Your task to perform on an android device: Add bose soundlink to the cart on target Image 0: 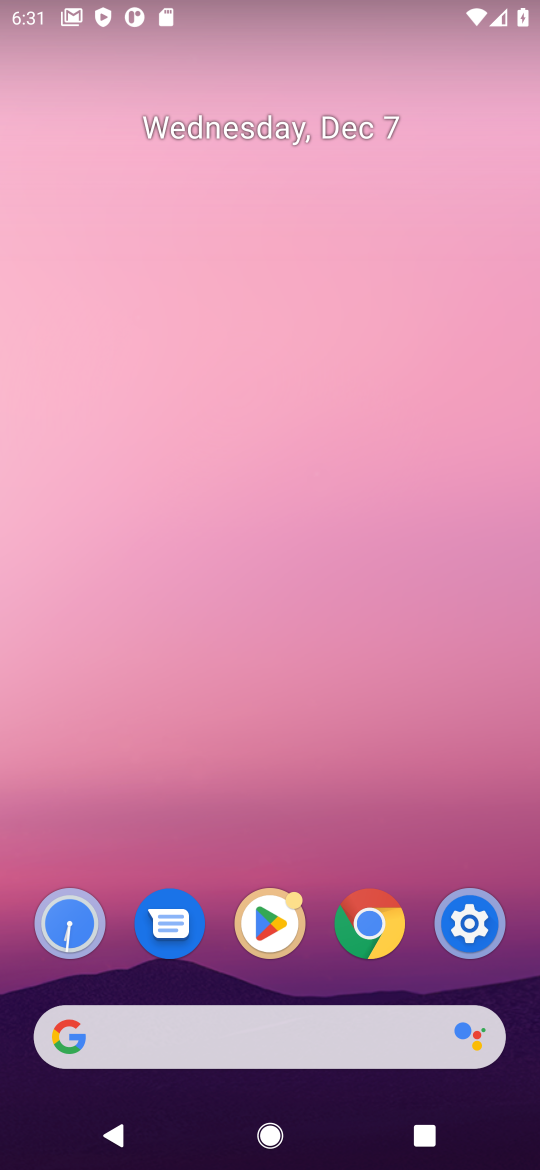
Step 0: drag from (206, 946) to (203, 273)
Your task to perform on an android device: Add bose soundlink to the cart on target Image 1: 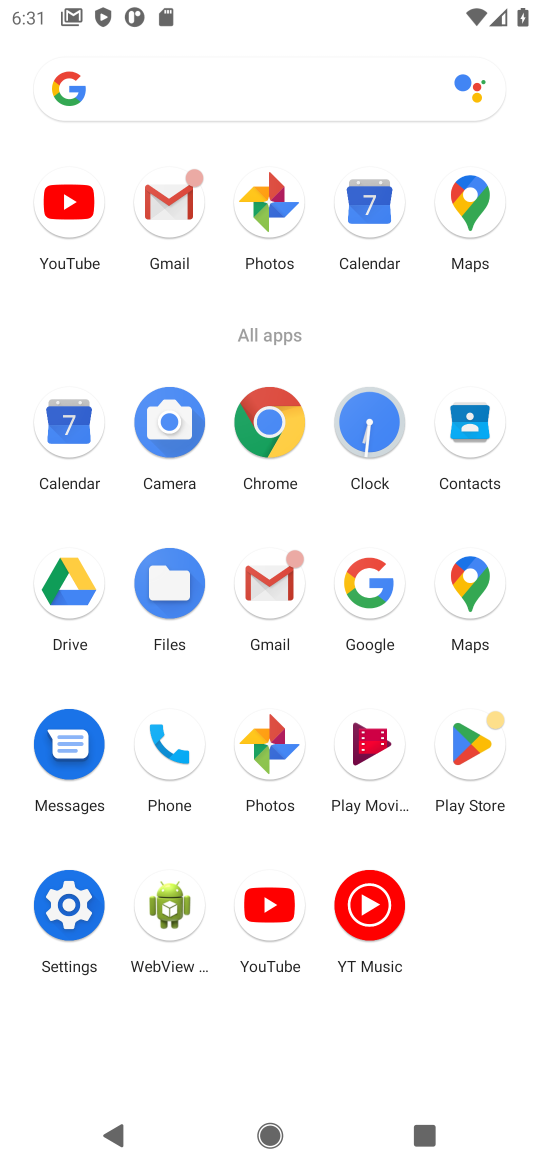
Step 1: click (362, 578)
Your task to perform on an android device: Add bose soundlink to the cart on target Image 2: 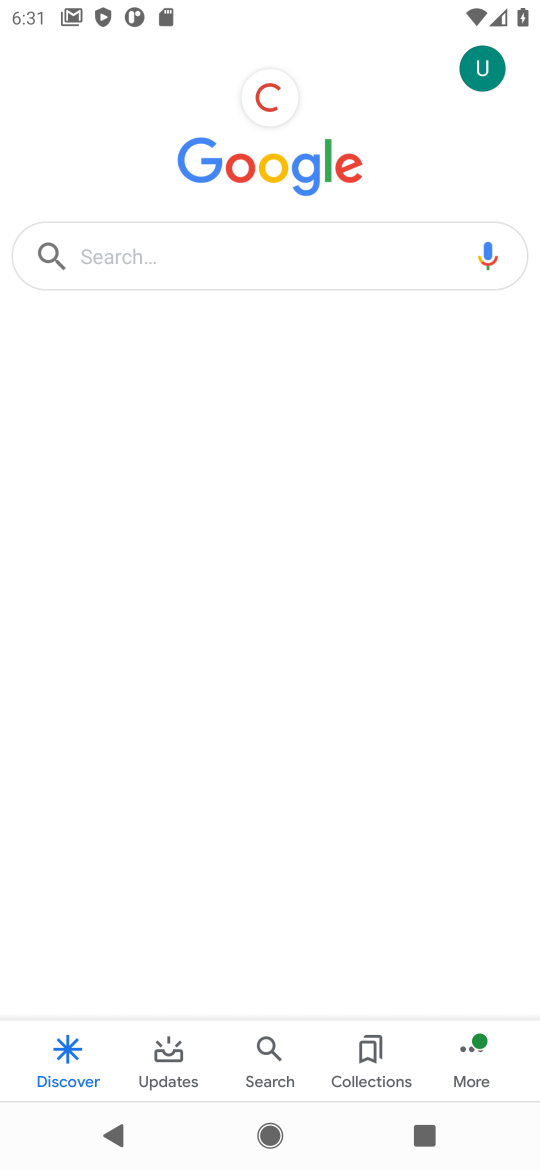
Step 2: click (211, 246)
Your task to perform on an android device: Add bose soundlink to the cart on target Image 3: 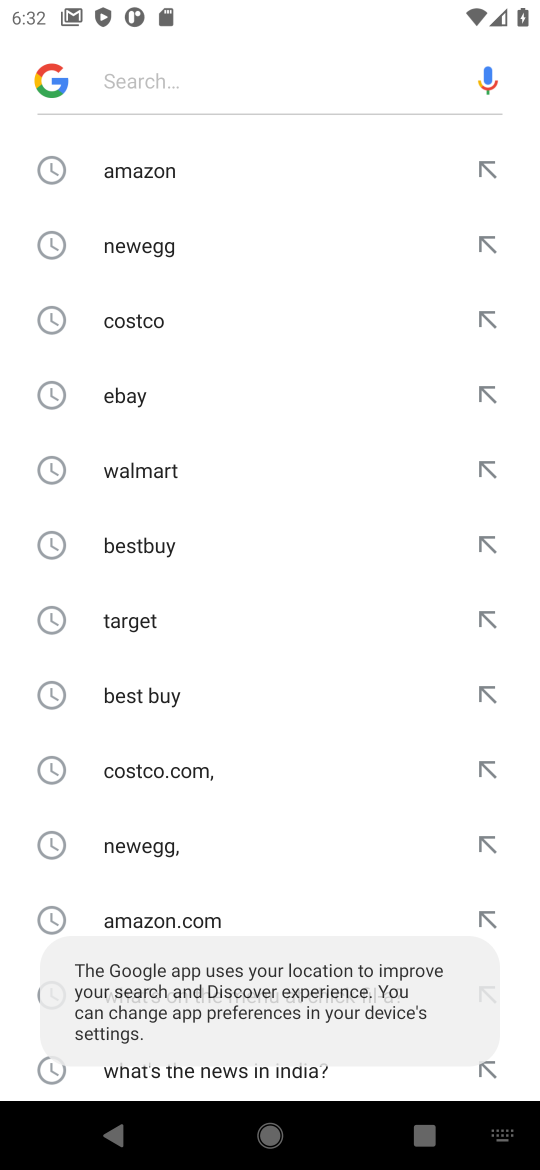
Step 3: click (132, 624)
Your task to perform on an android device: Add bose soundlink to the cart on target Image 4: 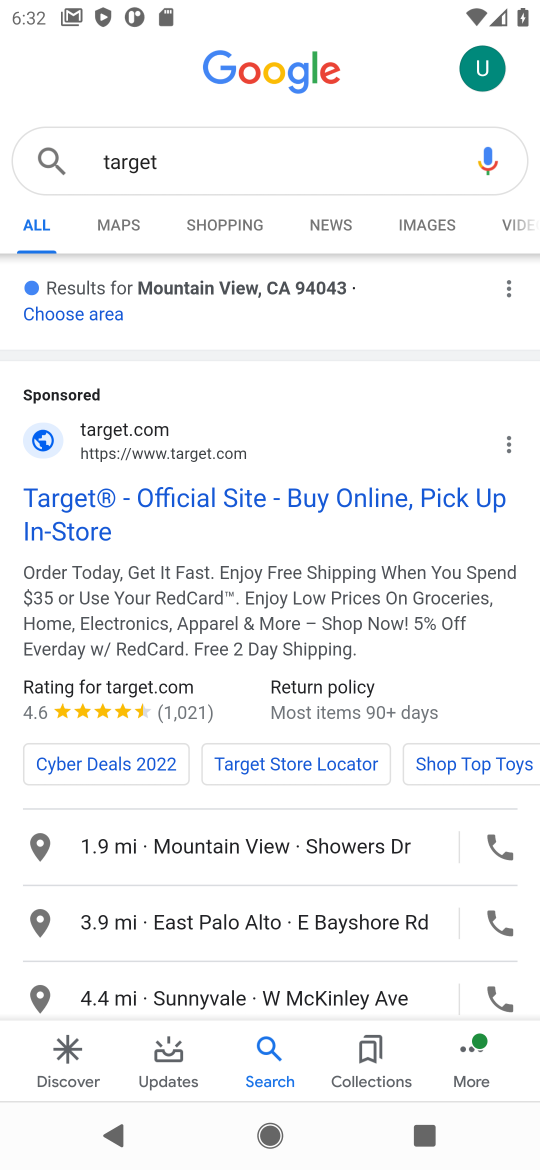
Step 4: click (141, 515)
Your task to perform on an android device: Add bose soundlink to the cart on target Image 5: 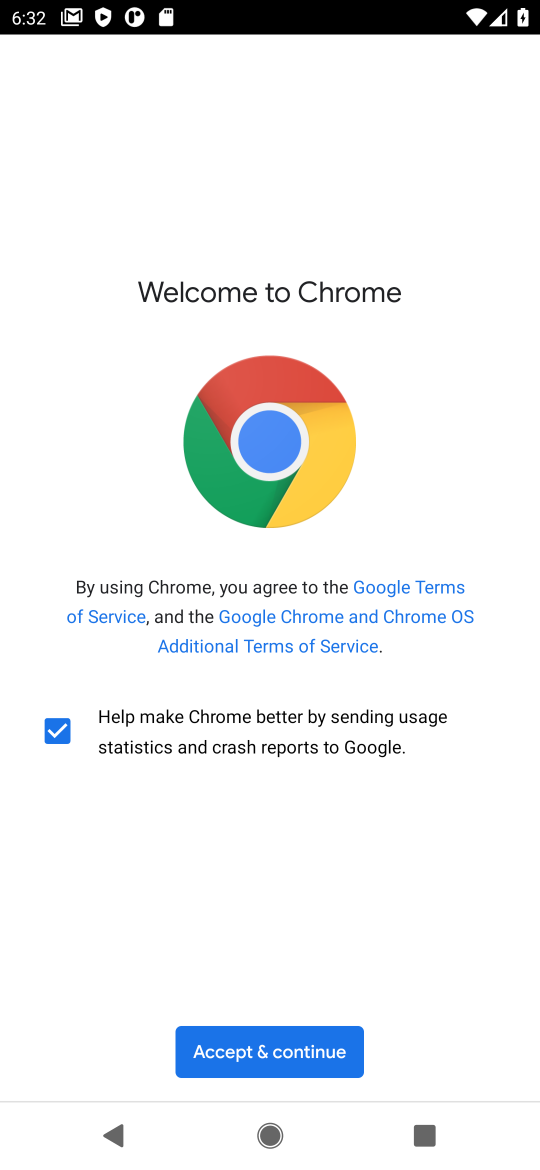
Step 5: click (256, 1042)
Your task to perform on an android device: Add bose soundlink to the cart on target Image 6: 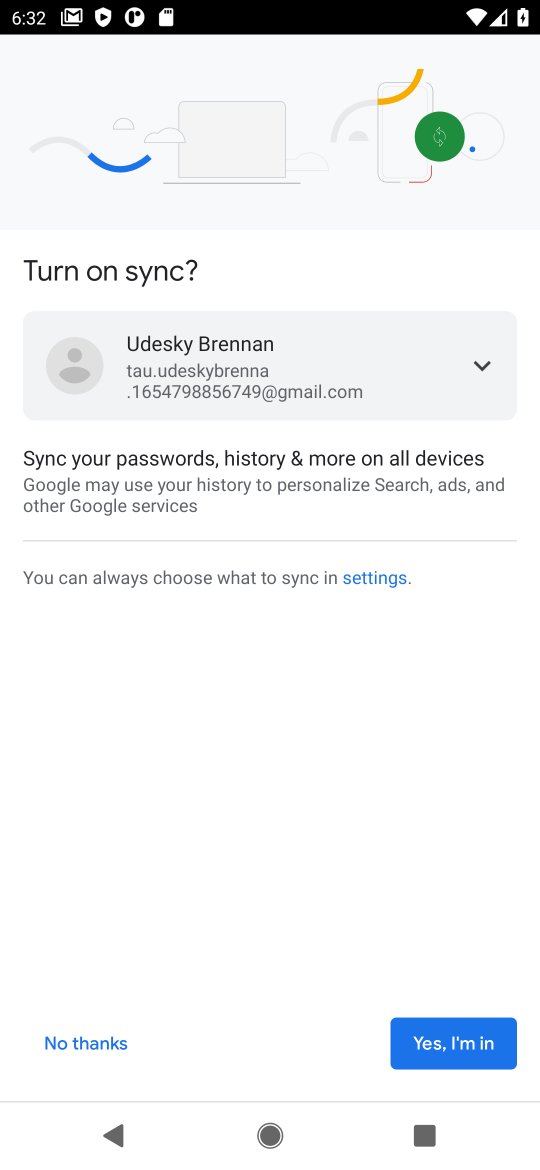
Step 6: click (486, 1045)
Your task to perform on an android device: Add bose soundlink to the cart on target Image 7: 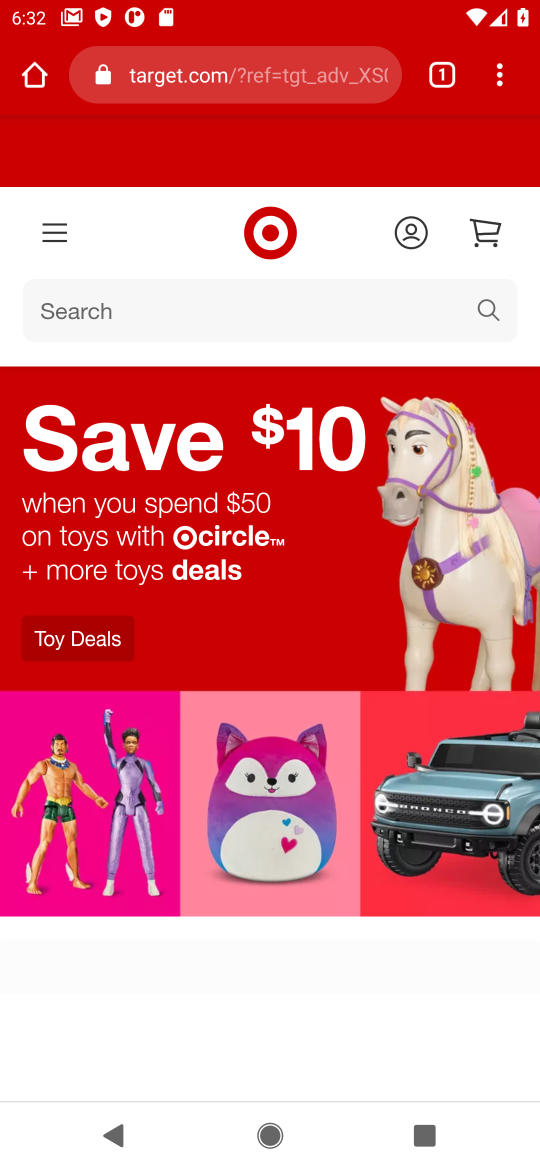
Step 7: click (75, 308)
Your task to perform on an android device: Add bose soundlink to the cart on target Image 8: 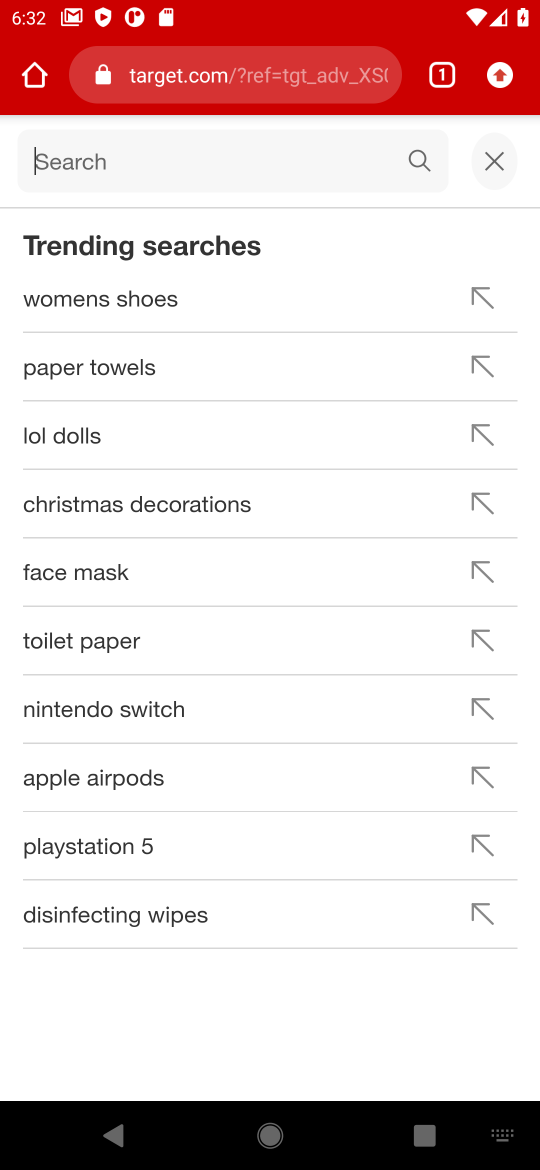
Step 8: type "bose soundlink"
Your task to perform on an android device: Add bose soundlink to the cart on target Image 9: 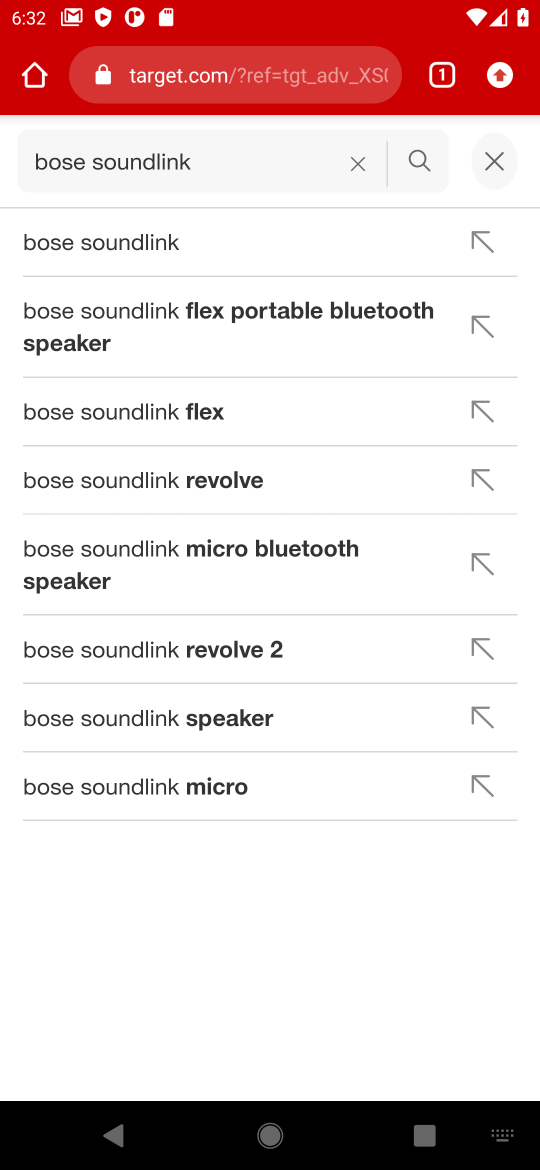
Step 9: click (102, 248)
Your task to perform on an android device: Add bose soundlink to the cart on target Image 10: 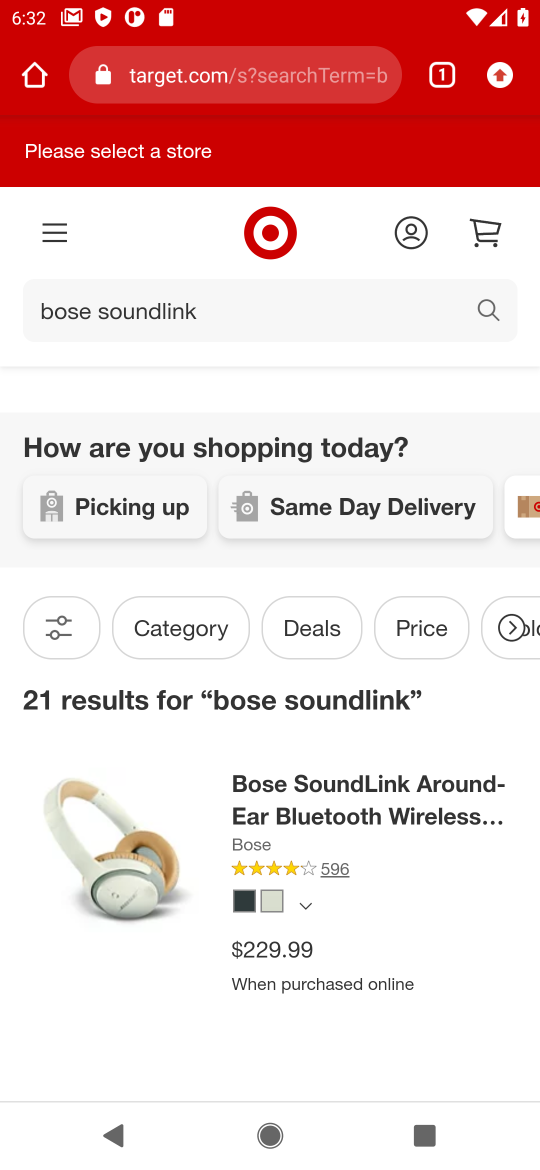
Step 10: click (191, 510)
Your task to perform on an android device: Add bose soundlink to the cart on target Image 11: 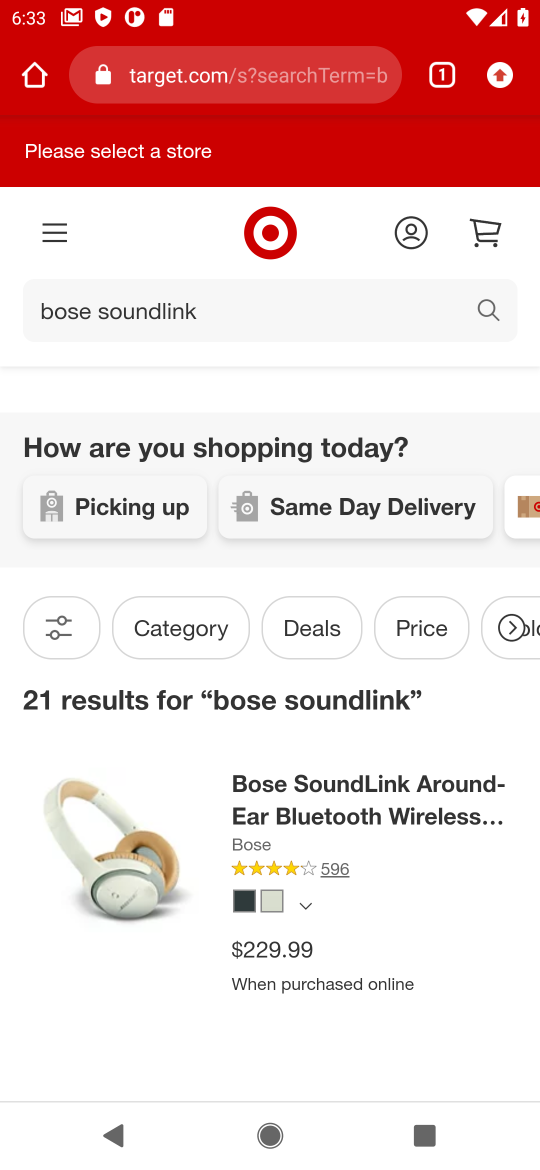
Step 11: click (357, 232)
Your task to perform on an android device: Add bose soundlink to the cart on target Image 12: 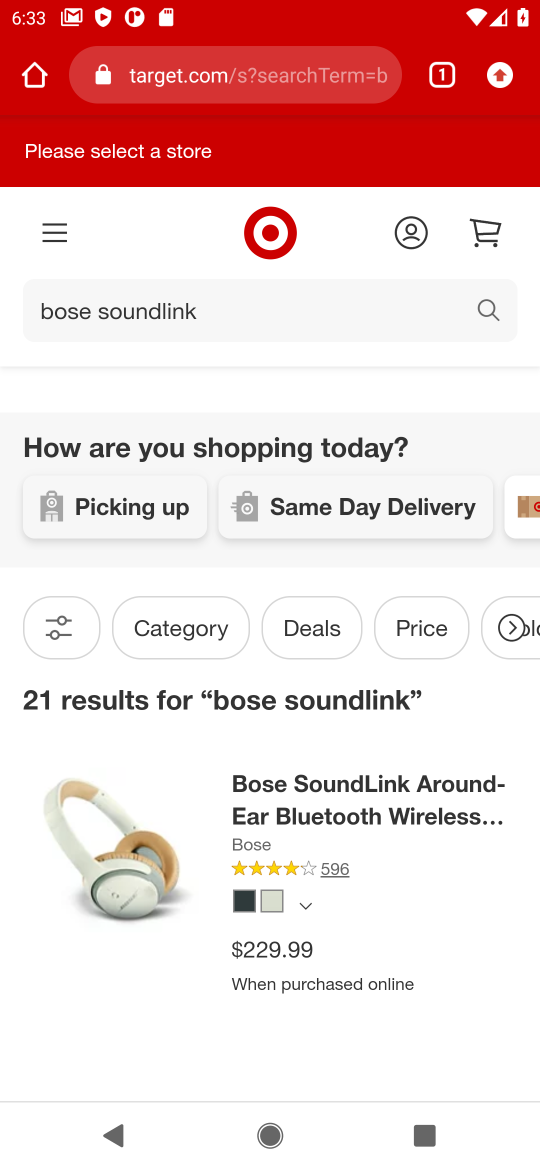
Step 12: drag from (275, 926) to (292, 296)
Your task to perform on an android device: Add bose soundlink to the cart on target Image 13: 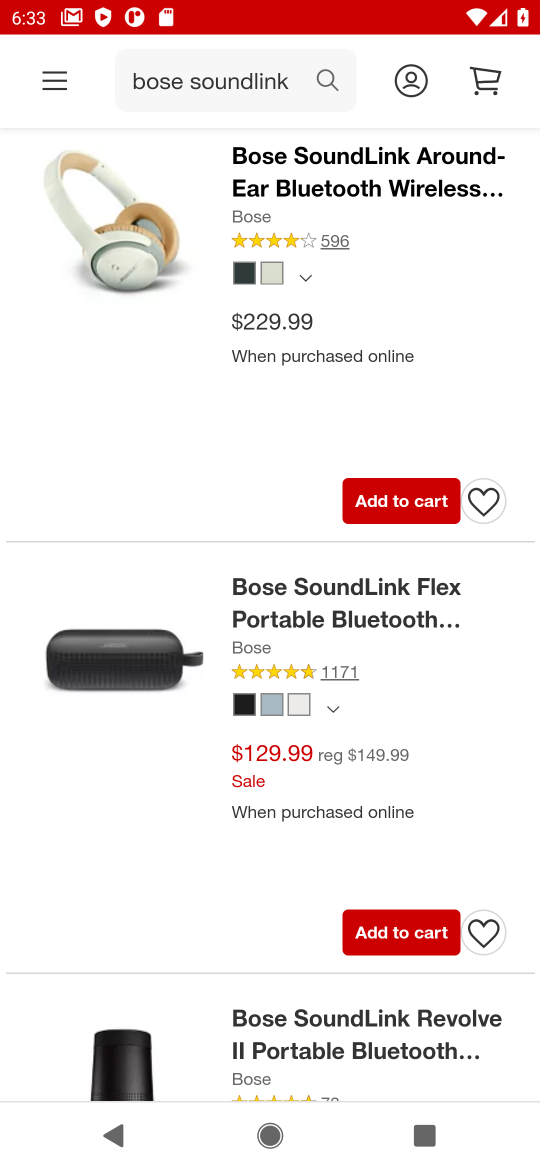
Step 13: click (402, 494)
Your task to perform on an android device: Add bose soundlink to the cart on target Image 14: 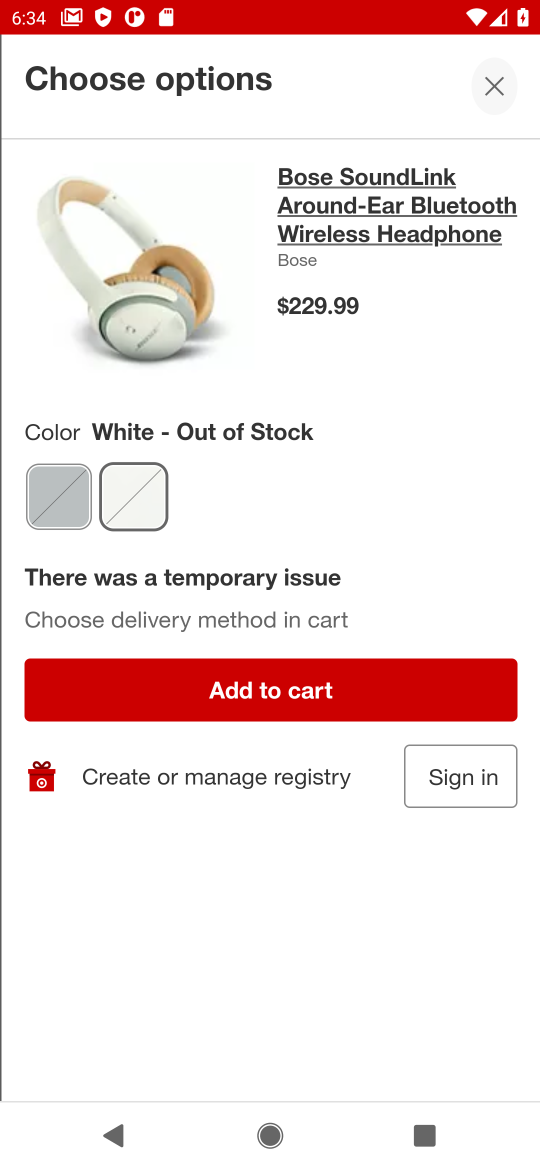
Step 14: task complete